Your task to perform on an android device: Open the calendar app, open the side menu, and click the "Day" option Image 0: 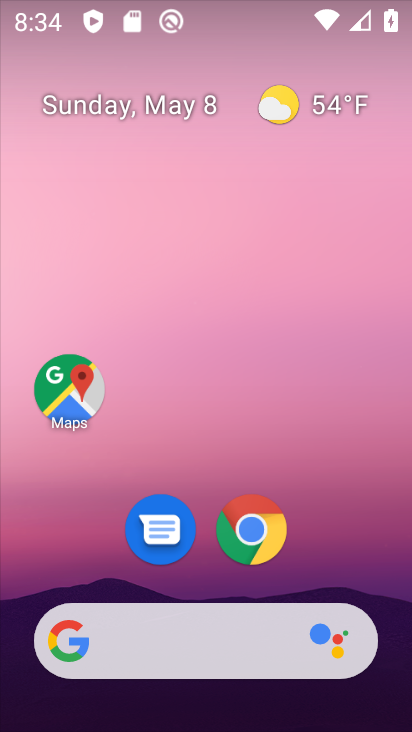
Step 0: drag from (374, 550) to (410, 83)
Your task to perform on an android device: Open the calendar app, open the side menu, and click the "Day" option Image 1: 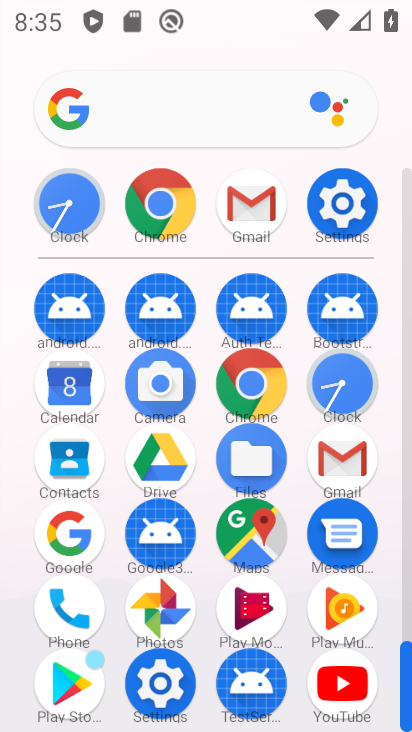
Step 1: click (83, 395)
Your task to perform on an android device: Open the calendar app, open the side menu, and click the "Day" option Image 2: 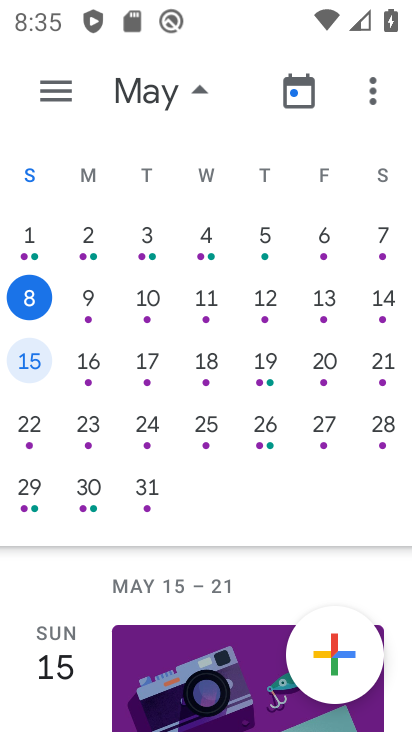
Step 2: click (48, 95)
Your task to perform on an android device: Open the calendar app, open the side menu, and click the "Day" option Image 3: 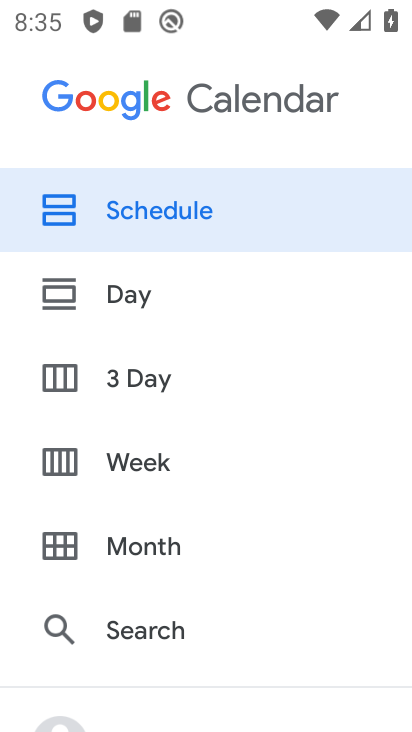
Step 3: click (147, 297)
Your task to perform on an android device: Open the calendar app, open the side menu, and click the "Day" option Image 4: 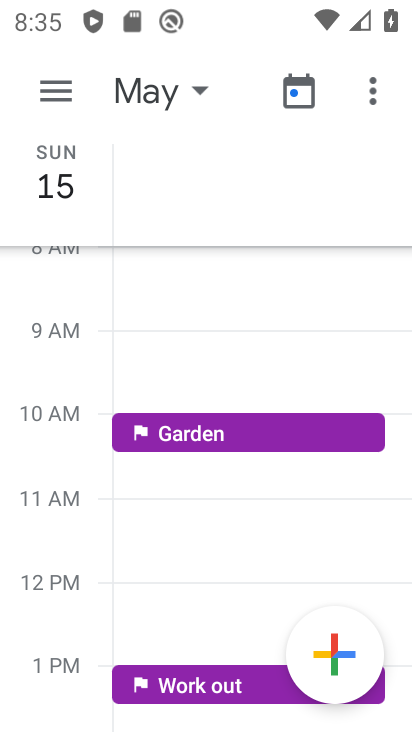
Step 4: task complete